Your task to perform on an android device: toggle pop-ups in chrome Image 0: 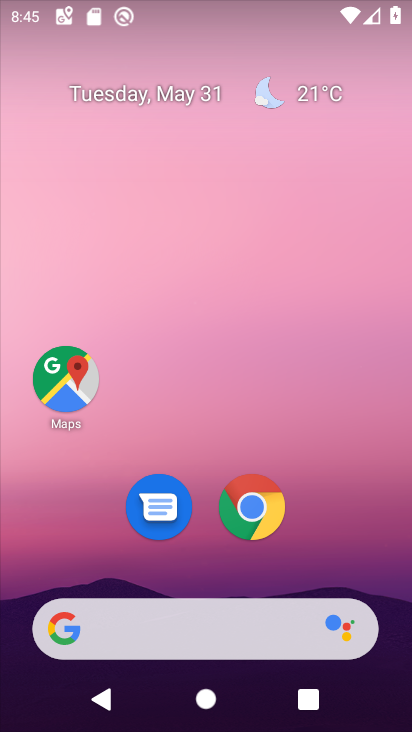
Step 0: drag from (286, 654) to (300, 170)
Your task to perform on an android device: toggle pop-ups in chrome Image 1: 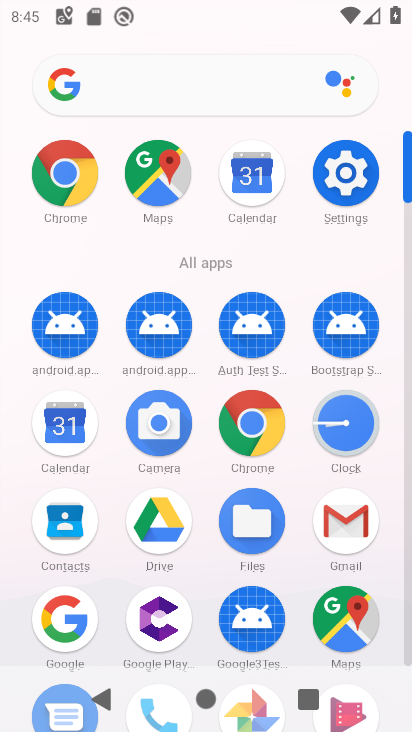
Step 1: click (77, 177)
Your task to perform on an android device: toggle pop-ups in chrome Image 2: 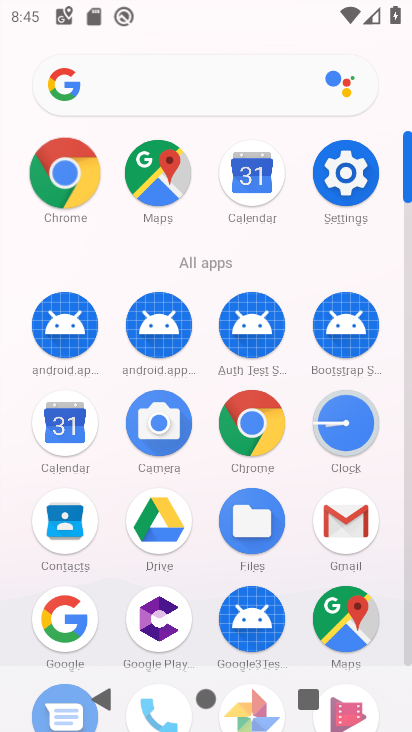
Step 2: click (77, 177)
Your task to perform on an android device: toggle pop-ups in chrome Image 3: 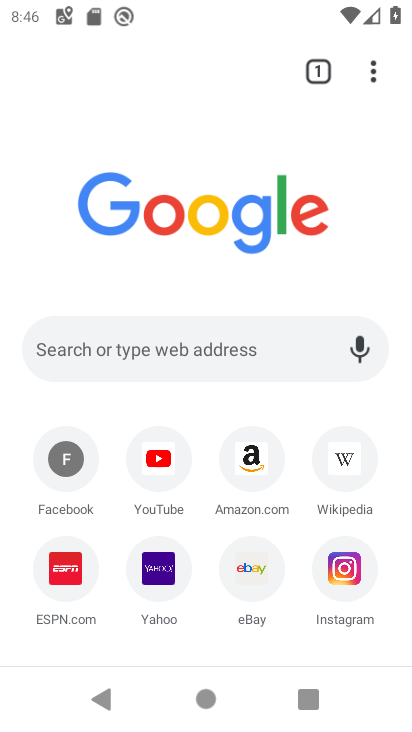
Step 3: press back button
Your task to perform on an android device: toggle pop-ups in chrome Image 4: 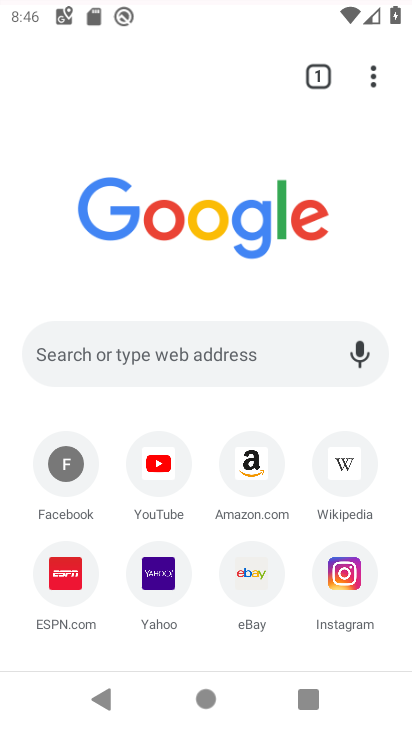
Step 4: press back button
Your task to perform on an android device: toggle pop-ups in chrome Image 5: 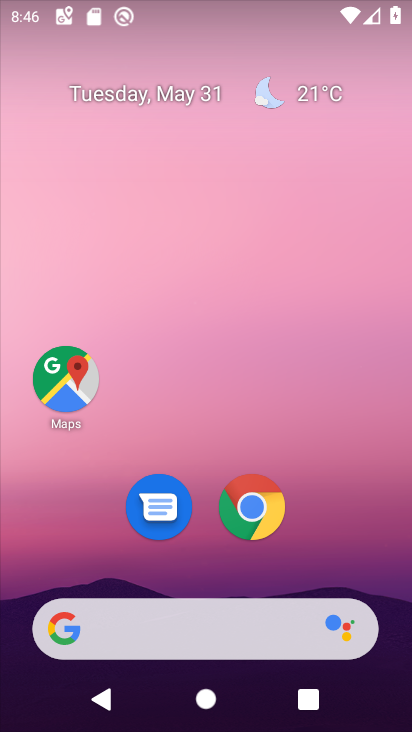
Step 5: drag from (264, 675) to (221, 117)
Your task to perform on an android device: toggle pop-ups in chrome Image 6: 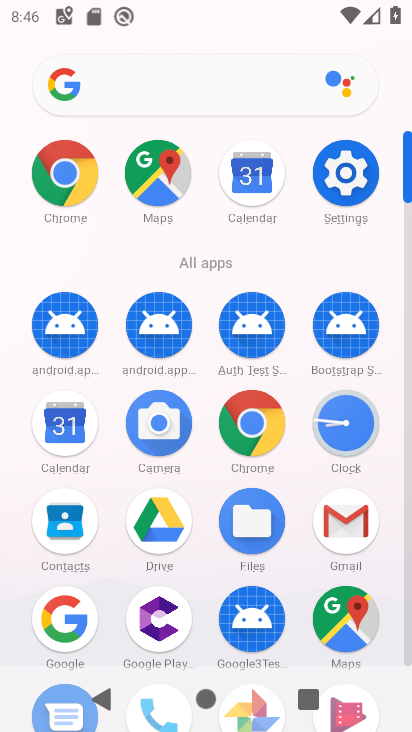
Step 6: click (67, 170)
Your task to perform on an android device: toggle pop-ups in chrome Image 7: 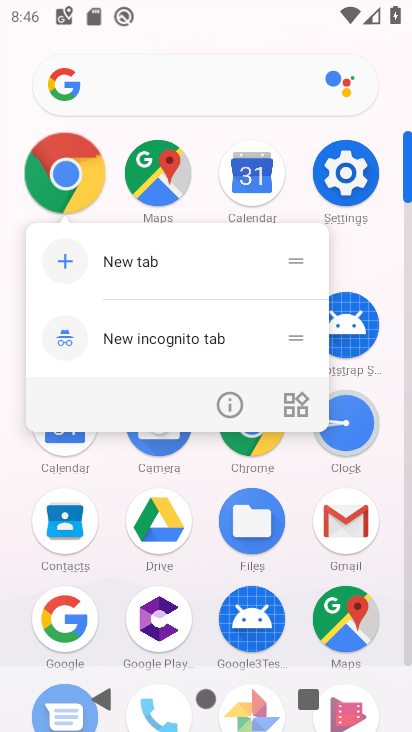
Step 7: click (66, 170)
Your task to perform on an android device: toggle pop-ups in chrome Image 8: 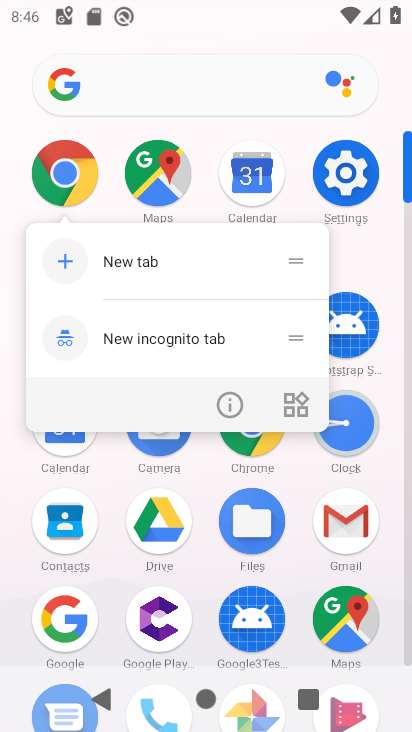
Step 8: click (116, 261)
Your task to perform on an android device: toggle pop-ups in chrome Image 9: 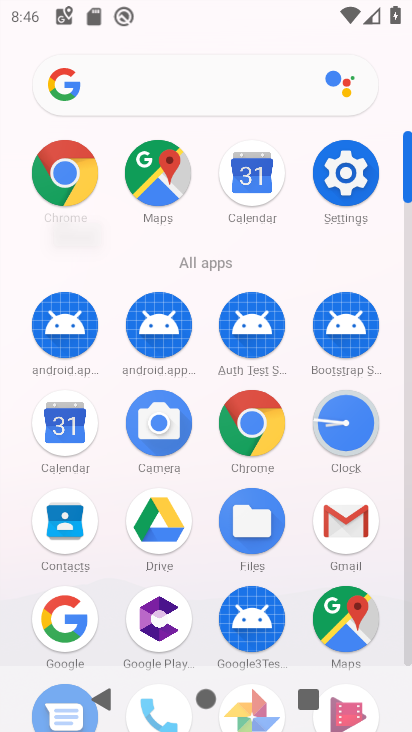
Step 9: click (116, 261)
Your task to perform on an android device: toggle pop-ups in chrome Image 10: 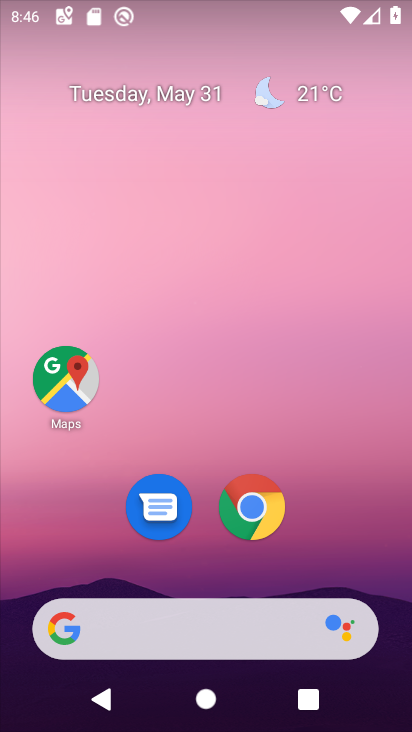
Step 10: drag from (229, 618) to (178, 13)
Your task to perform on an android device: toggle pop-ups in chrome Image 11: 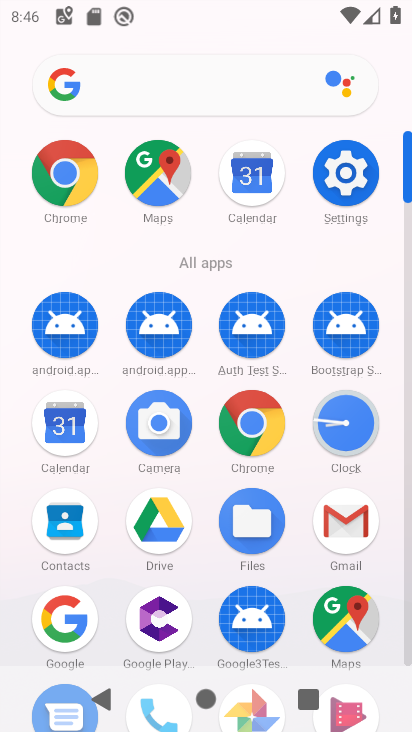
Step 11: click (65, 169)
Your task to perform on an android device: toggle pop-ups in chrome Image 12: 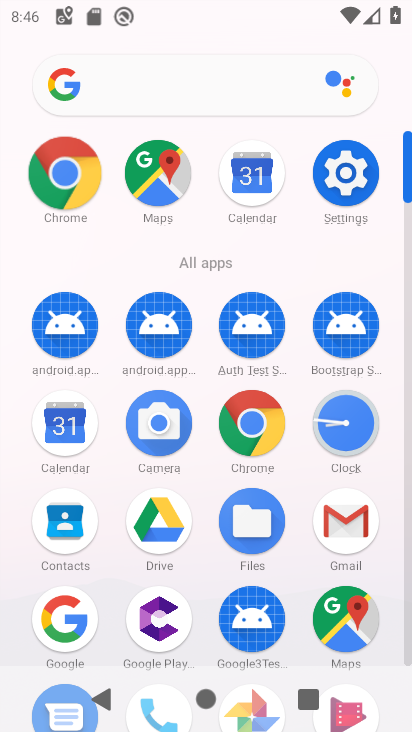
Step 12: click (65, 169)
Your task to perform on an android device: toggle pop-ups in chrome Image 13: 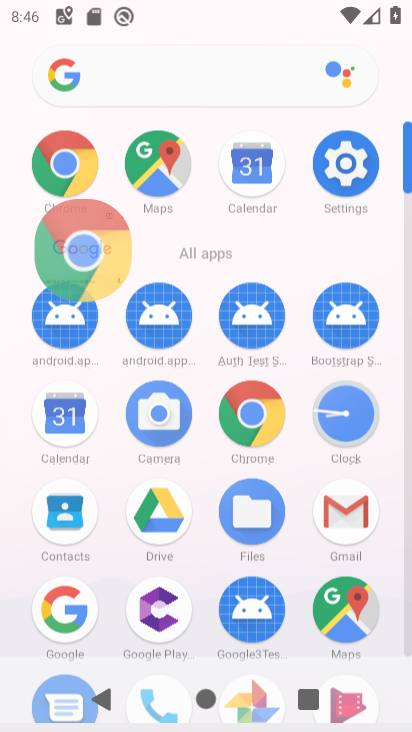
Step 13: click (61, 171)
Your task to perform on an android device: toggle pop-ups in chrome Image 14: 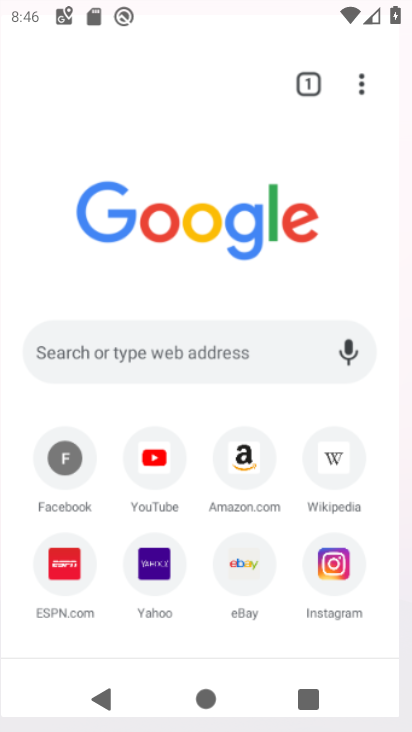
Step 14: click (62, 170)
Your task to perform on an android device: toggle pop-ups in chrome Image 15: 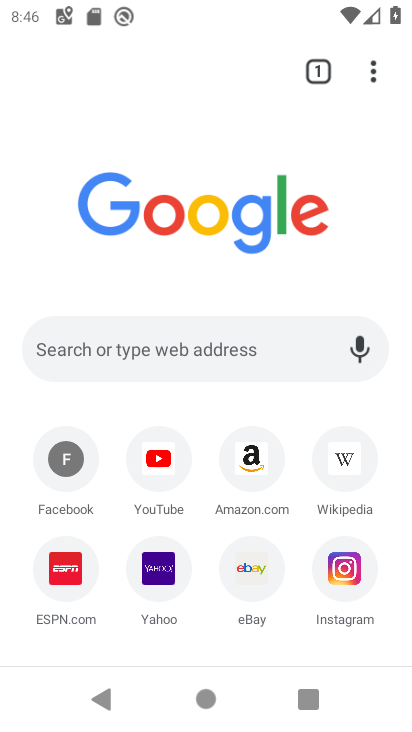
Step 15: drag from (374, 73) to (110, 499)
Your task to perform on an android device: toggle pop-ups in chrome Image 16: 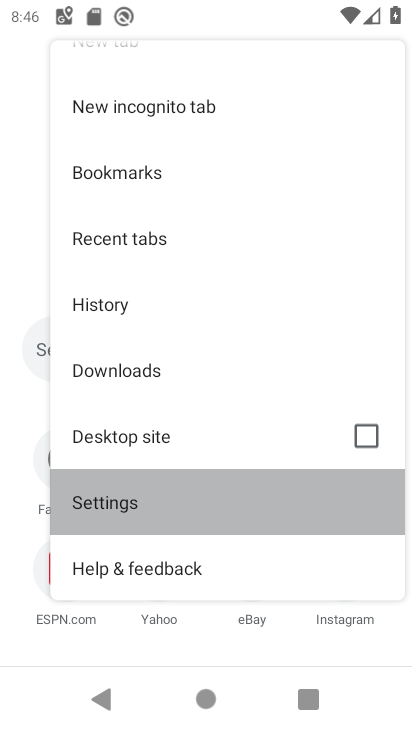
Step 16: click (110, 499)
Your task to perform on an android device: toggle pop-ups in chrome Image 17: 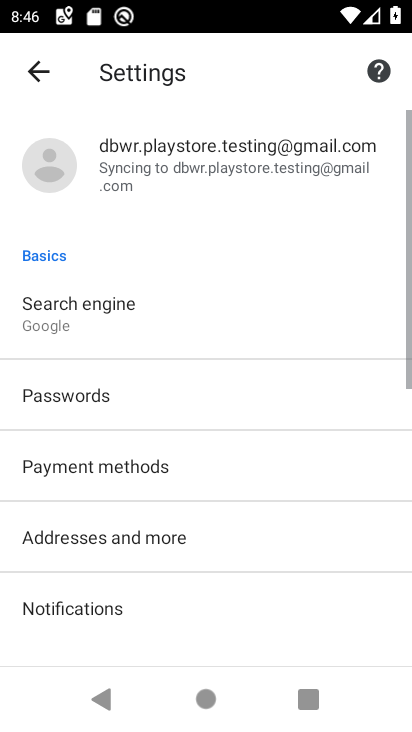
Step 17: drag from (92, 563) to (57, 129)
Your task to perform on an android device: toggle pop-ups in chrome Image 18: 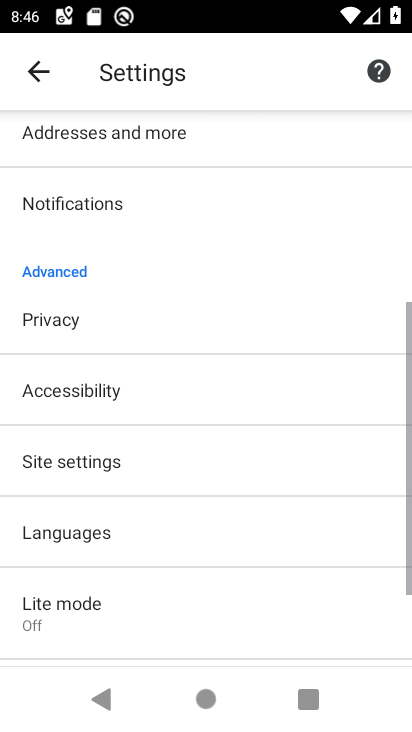
Step 18: drag from (115, 482) to (85, 126)
Your task to perform on an android device: toggle pop-ups in chrome Image 19: 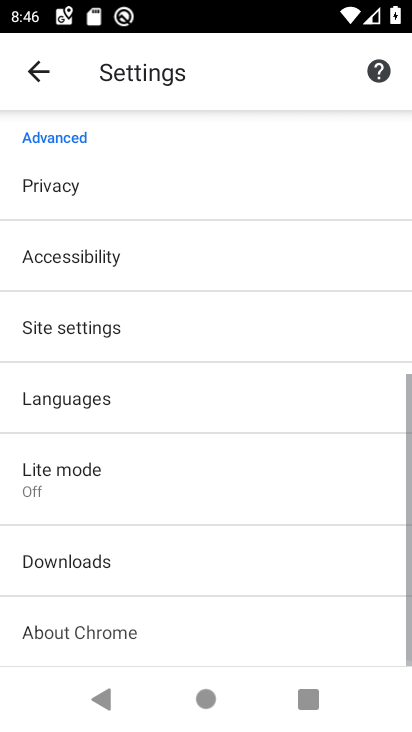
Step 19: drag from (104, 387) to (117, 169)
Your task to perform on an android device: toggle pop-ups in chrome Image 20: 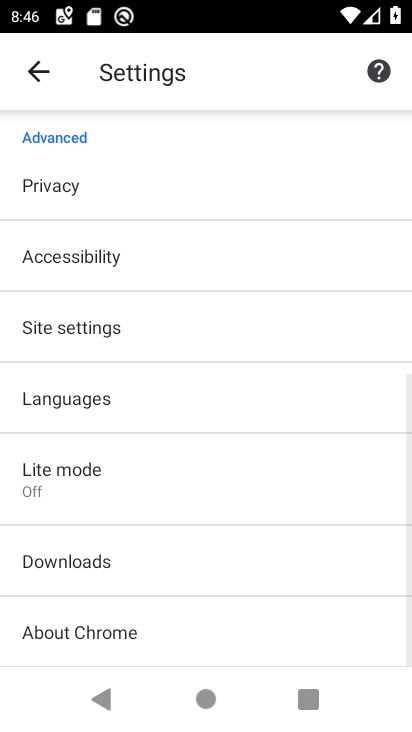
Step 20: click (61, 308)
Your task to perform on an android device: toggle pop-ups in chrome Image 21: 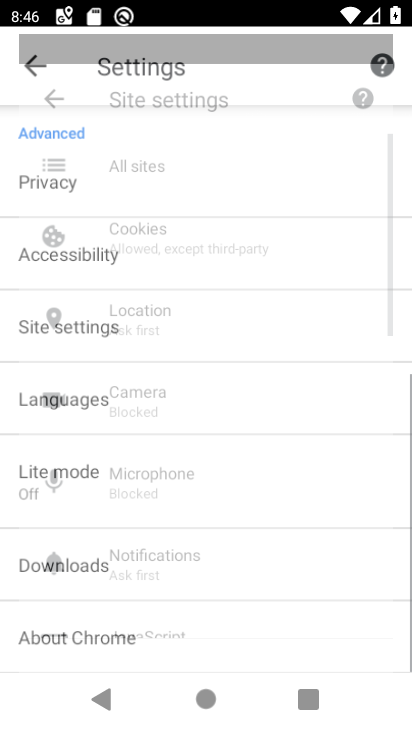
Step 21: click (61, 334)
Your task to perform on an android device: toggle pop-ups in chrome Image 22: 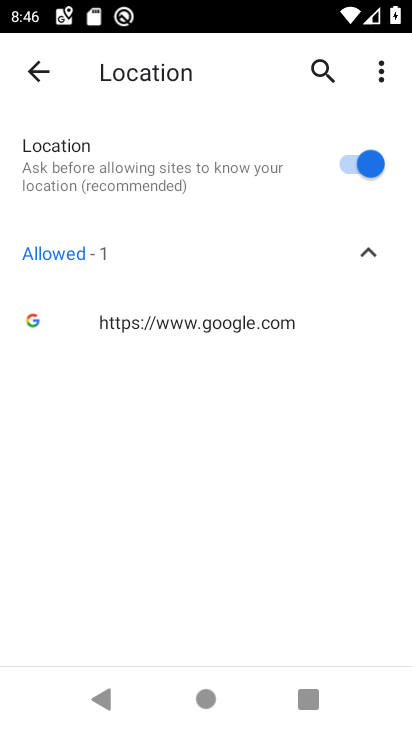
Step 22: click (35, 69)
Your task to perform on an android device: toggle pop-ups in chrome Image 23: 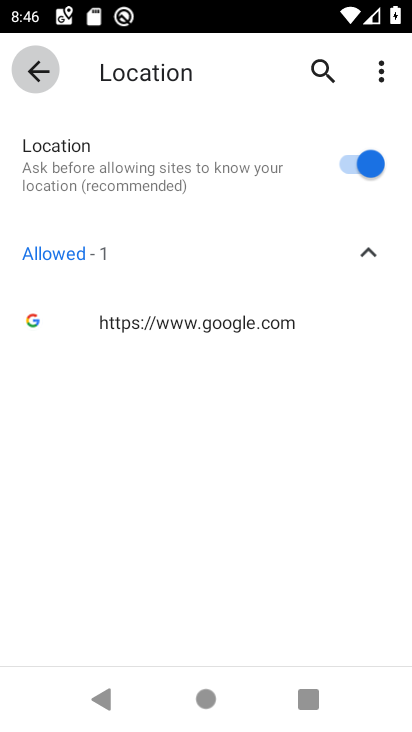
Step 23: click (37, 69)
Your task to perform on an android device: toggle pop-ups in chrome Image 24: 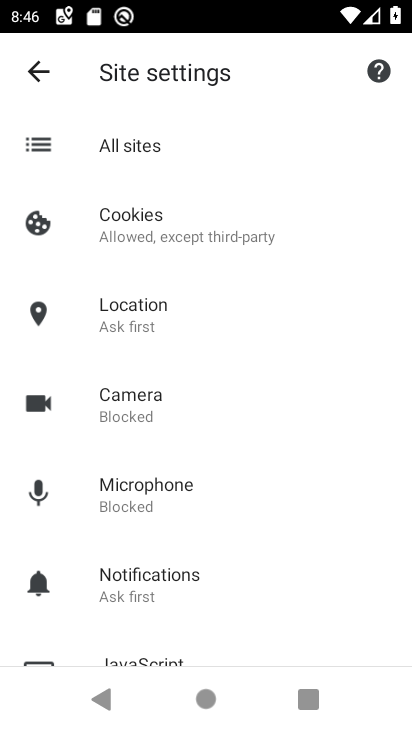
Step 24: drag from (175, 510) to (166, 194)
Your task to perform on an android device: toggle pop-ups in chrome Image 25: 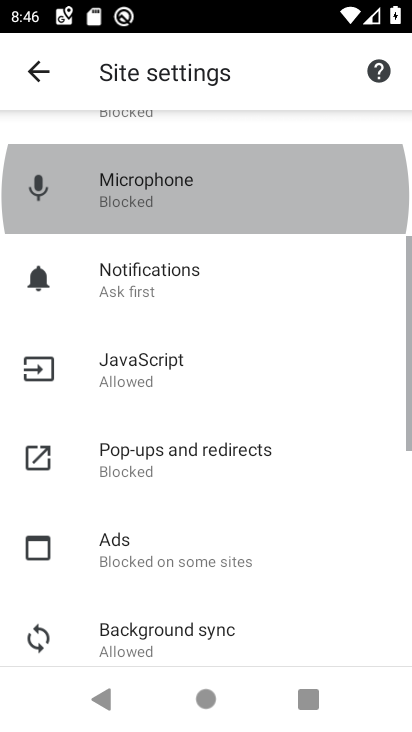
Step 25: drag from (203, 417) to (223, 101)
Your task to perform on an android device: toggle pop-ups in chrome Image 26: 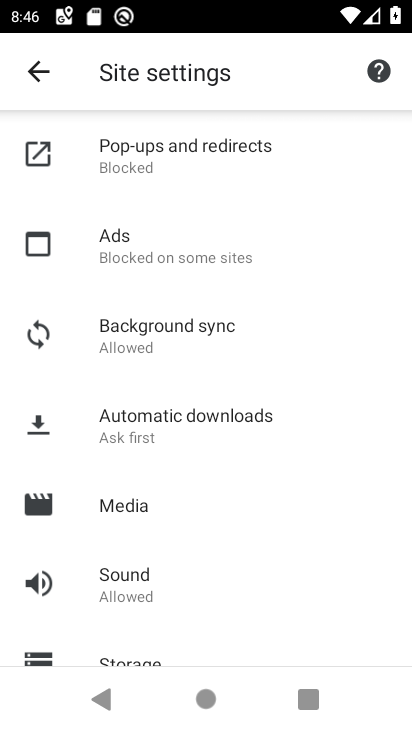
Step 26: drag from (161, 568) to (174, 287)
Your task to perform on an android device: toggle pop-ups in chrome Image 27: 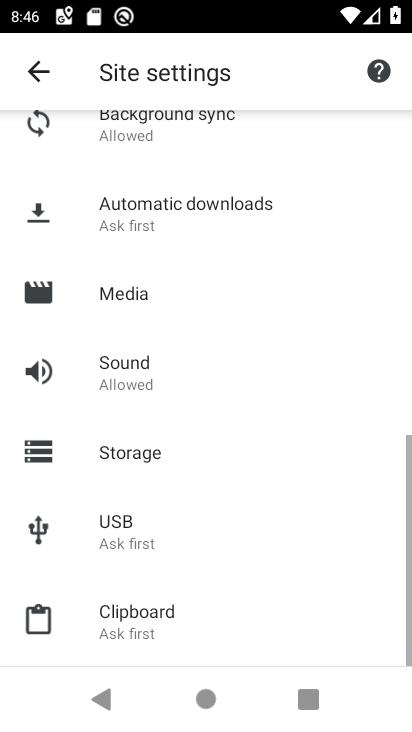
Step 27: drag from (217, 444) to (186, 219)
Your task to perform on an android device: toggle pop-ups in chrome Image 28: 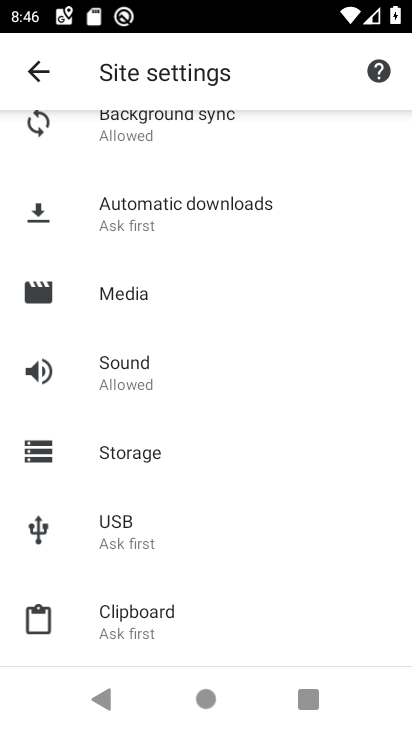
Step 28: drag from (138, 254) to (171, 549)
Your task to perform on an android device: toggle pop-ups in chrome Image 29: 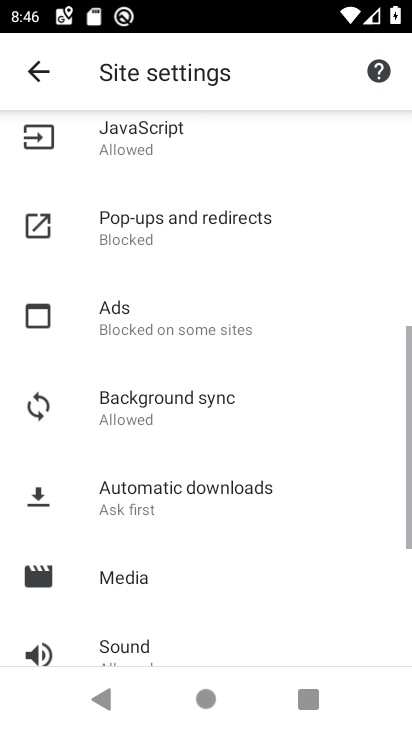
Step 29: drag from (181, 296) to (212, 546)
Your task to perform on an android device: toggle pop-ups in chrome Image 30: 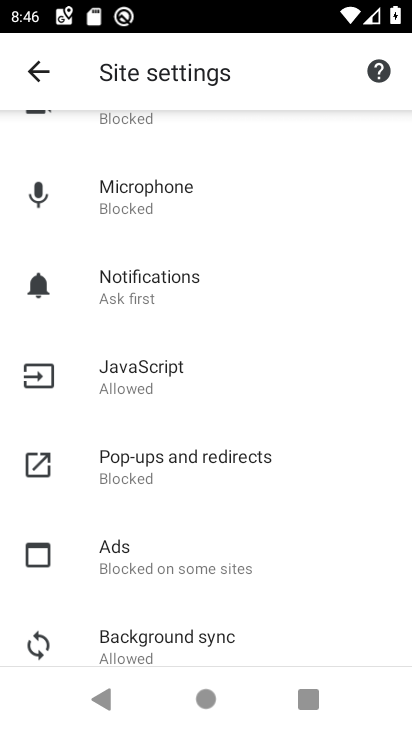
Step 30: click (138, 464)
Your task to perform on an android device: toggle pop-ups in chrome Image 31: 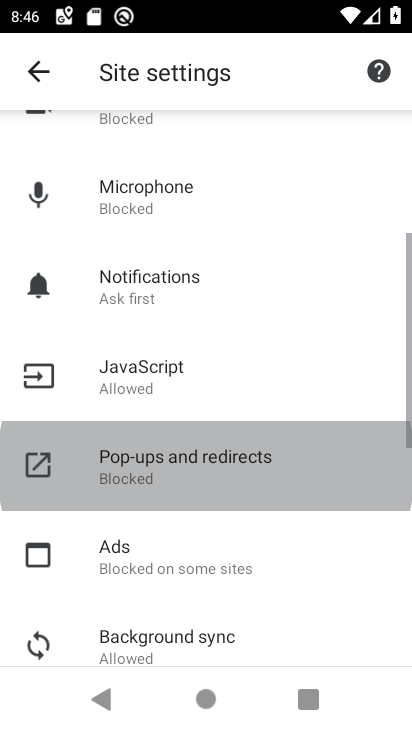
Step 31: click (138, 464)
Your task to perform on an android device: toggle pop-ups in chrome Image 32: 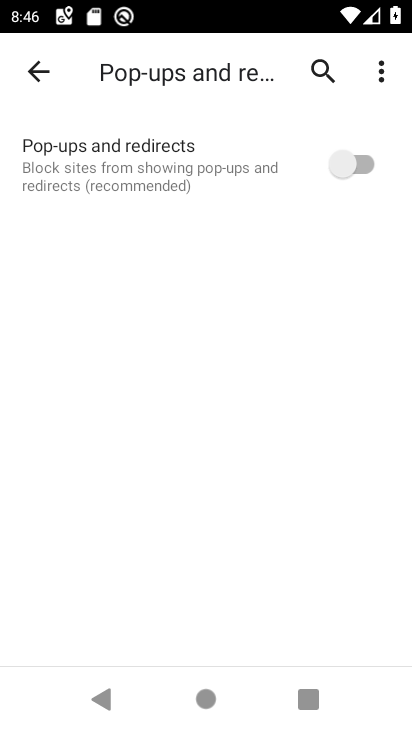
Step 32: click (346, 168)
Your task to perform on an android device: toggle pop-ups in chrome Image 33: 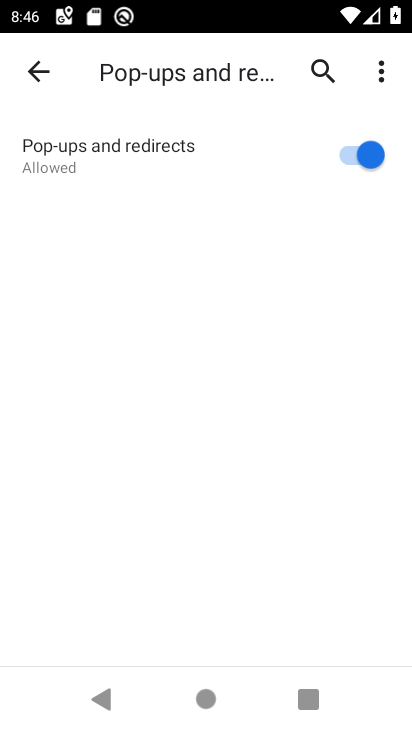
Step 33: task complete